Your task to perform on an android device: Go to notification settings Image 0: 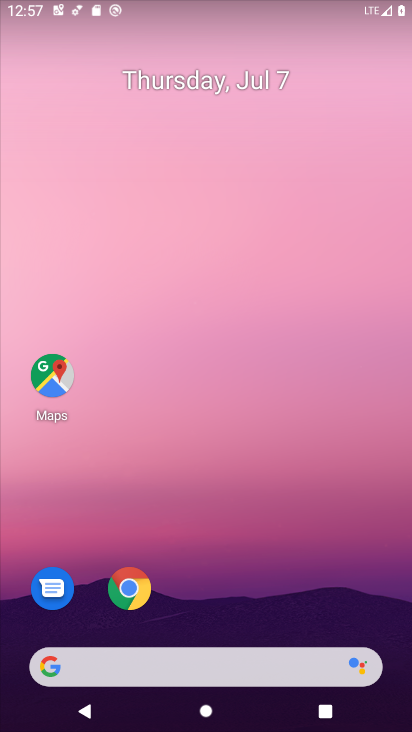
Step 0: drag from (239, 595) to (280, 312)
Your task to perform on an android device: Go to notification settings Image 1: 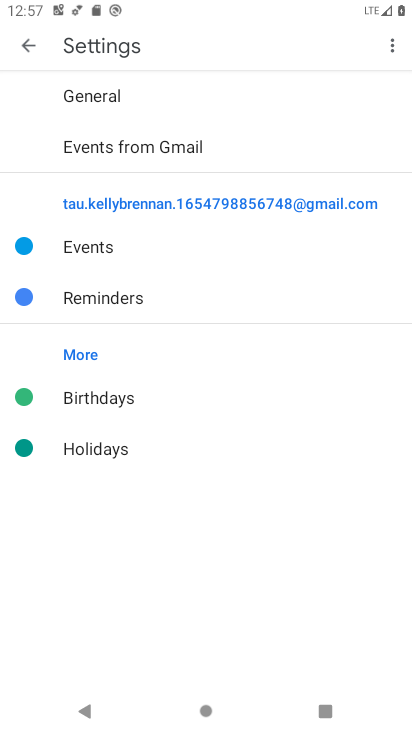
Step 1: press home button
Your task to perform on an android device: Go to notification settings Image 2: 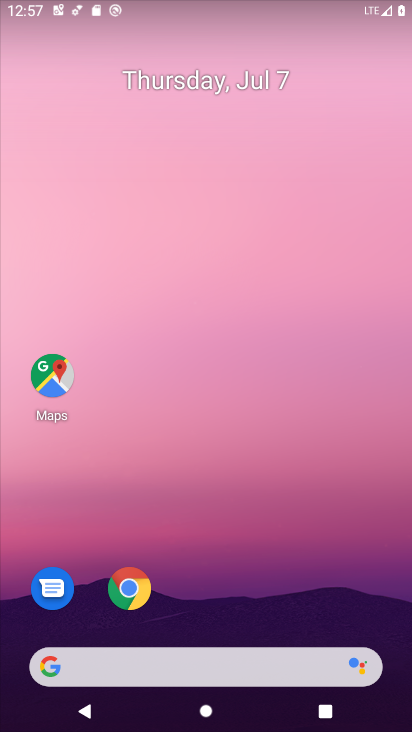
Step 2: drag from (203, 608) to (250, 214)
Your task to perform on an android device: Go to notification settings Image 3: 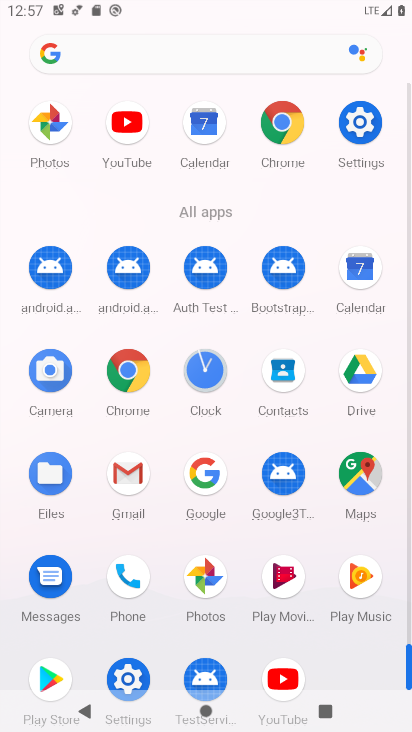
Step 3: click (360, 128)
Your task to perform on an android device: Go to notification settings Image 4: 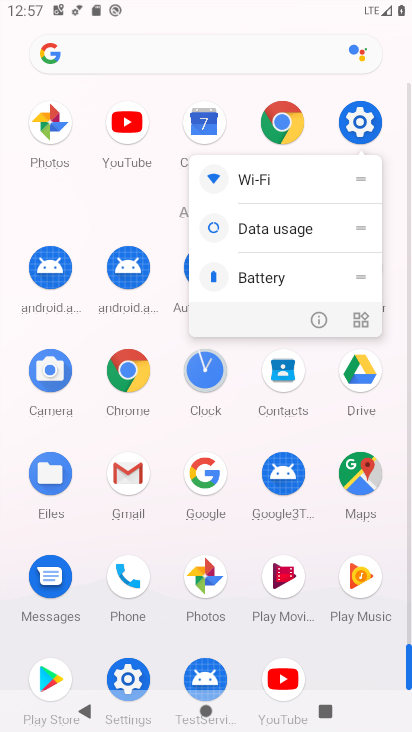
Step 4: click (317, 317)
Your task to perform on an android device: Go to notification settings Image 5: 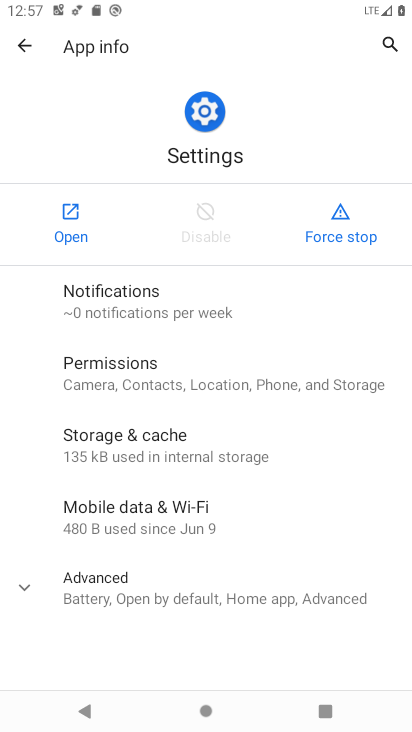
Step 5: click (75, 235)
Your task to perform on an android device: Go to notification settings Image 6: 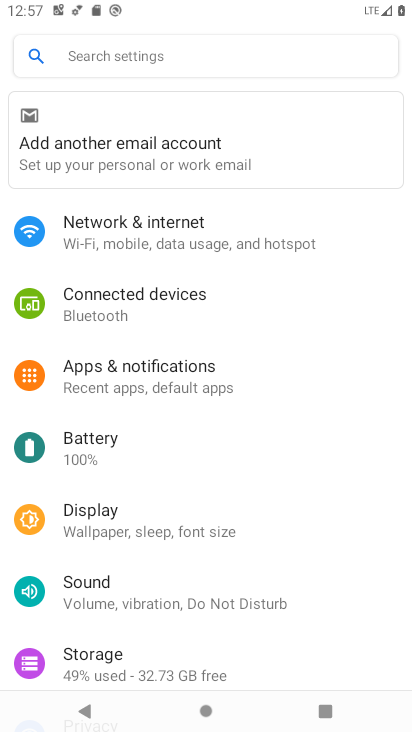
Step 6: click (169, 379)
Your task to perform on an android device: Go to notification settings Image 7: 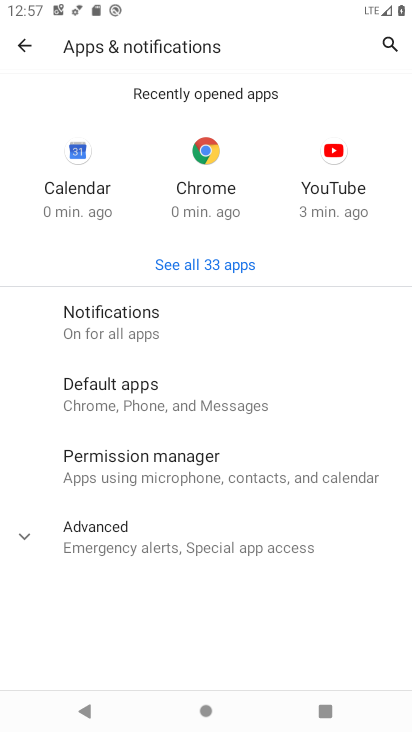
Step 7: click (136, 330)
Your task to perform on an android device: Go to notification settings Image 8: 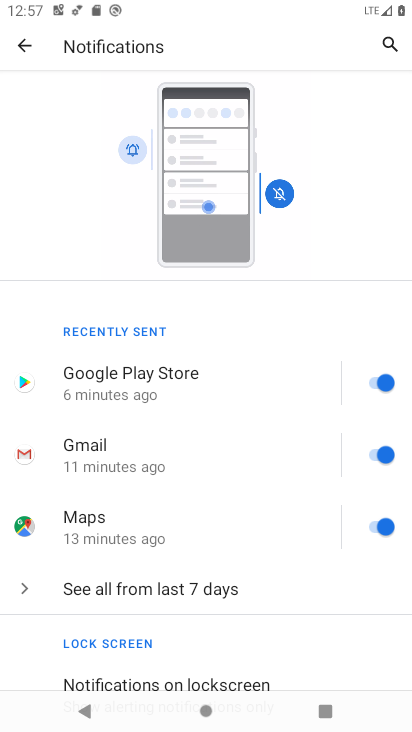
Step 8: task complete